Your task to perform on an android device: delete a single message in the gmail app Image 0: 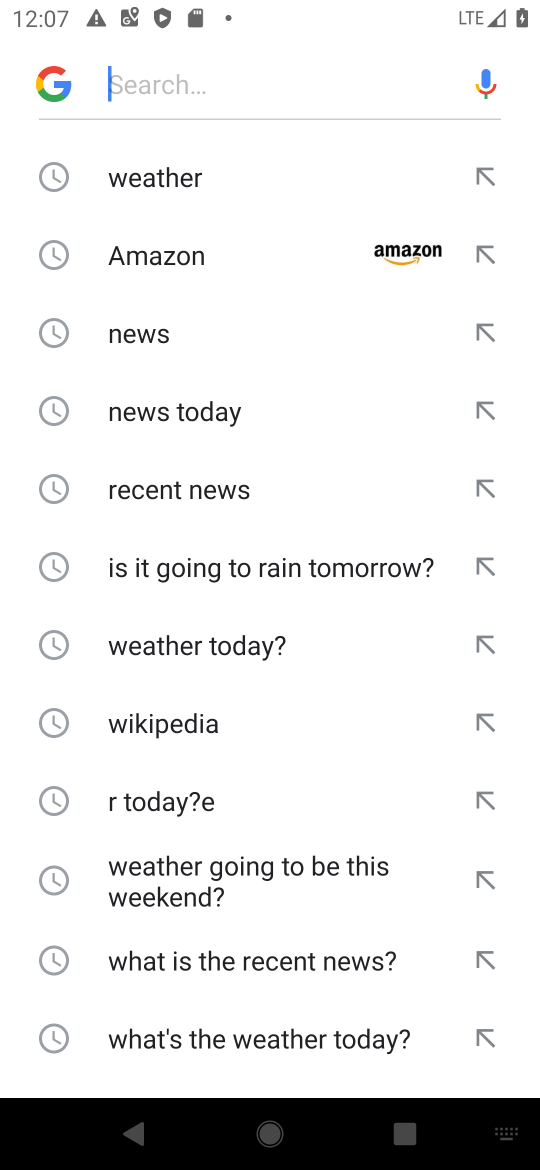
Step 0: press home button
Your task to perform on an android device: delete a single message in the gmail app Image 1: 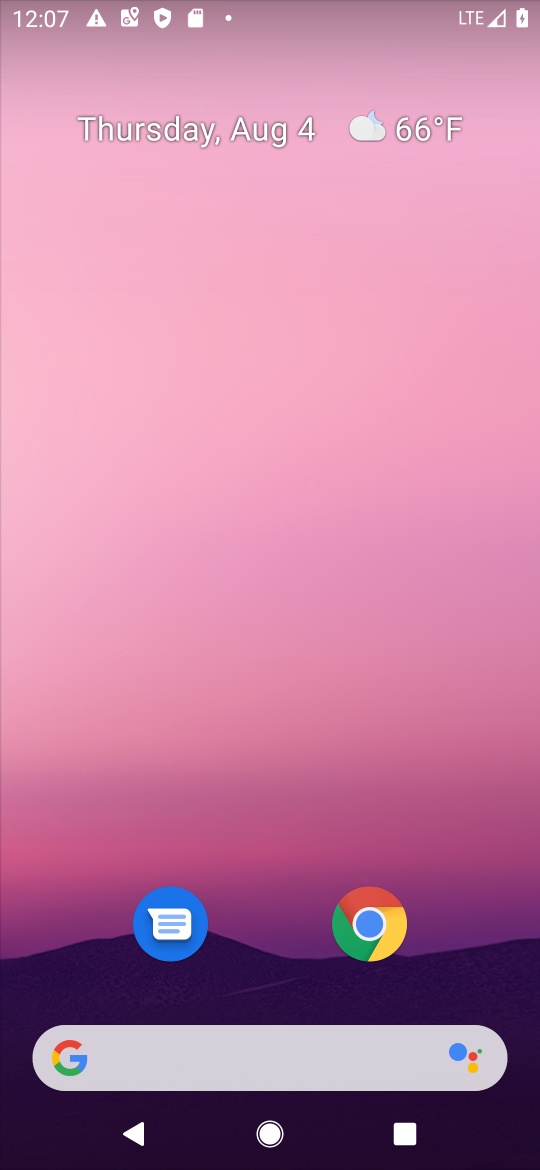
Step 1: drag from (110, 209) to (148, 98)
Your task to perform on an android device: delete a single message in the gmail app Image 2: 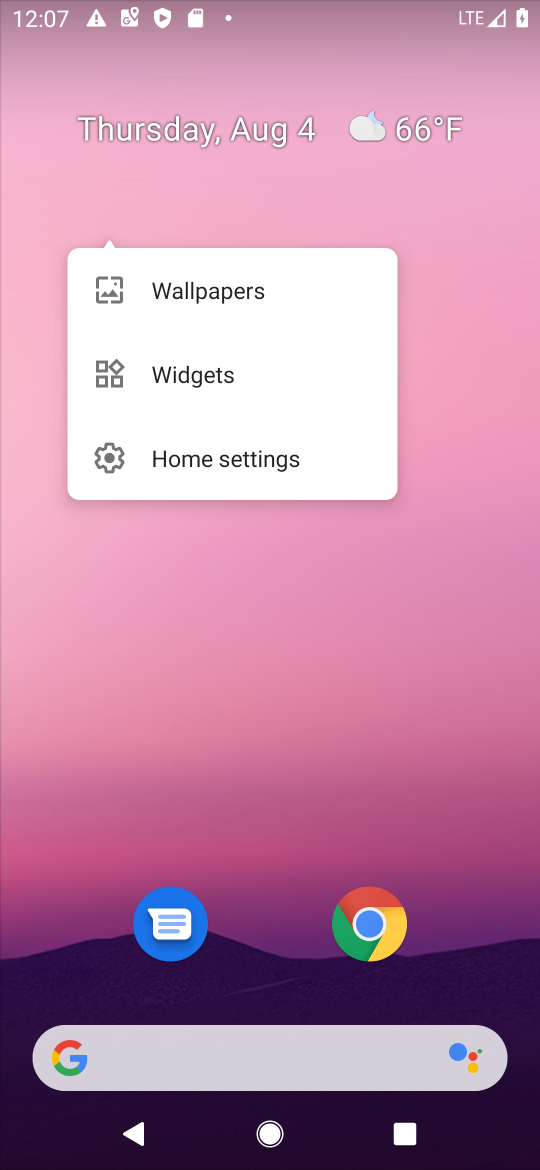
Step 2: drag from (59, 1136) to (167, 77)
Your task to perform on an android device: delete a single message in the gmail app Image 3: 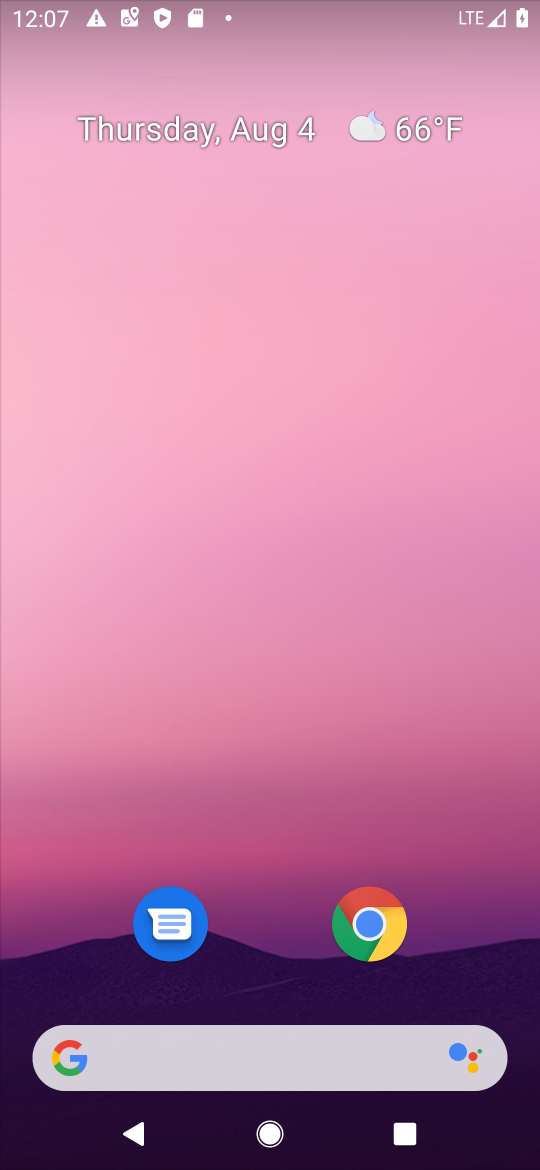
Step 3: drag from (53, 1108) to (201, 177)
Your task to perform on an android device: delete a single message in the gmail app Image 4: 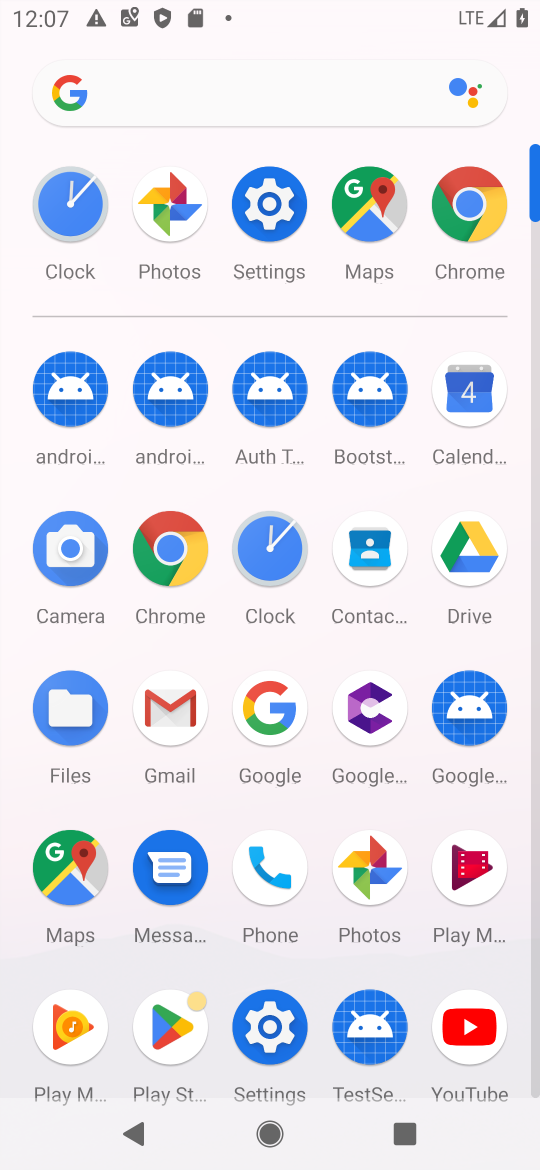
Step 4: click (186, 697)
Your task to perform on an android device: delete a single message in the gmail app Image 5: 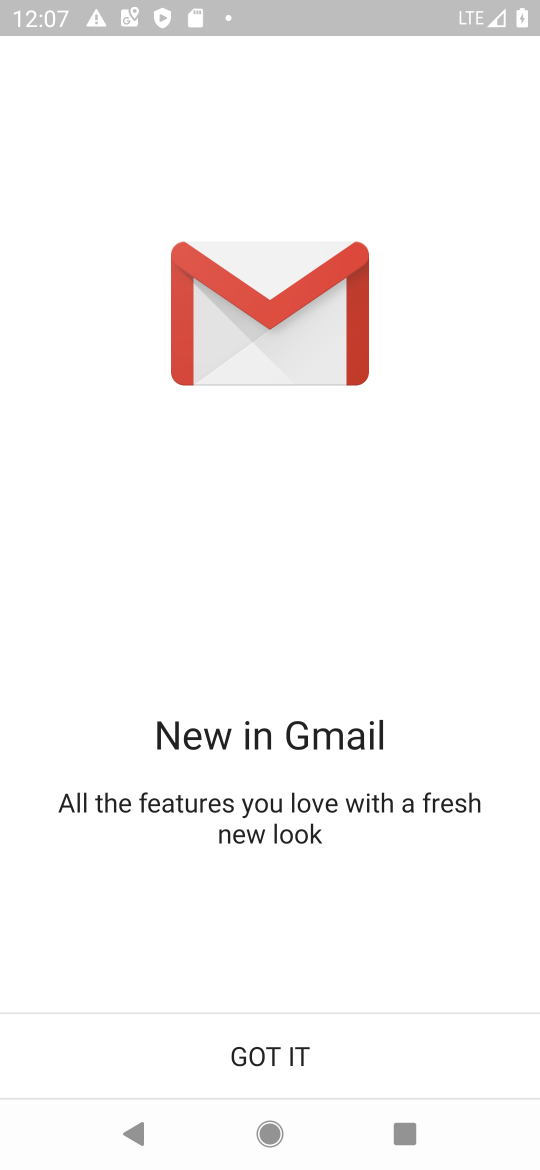
Step 5: click (245, 1060)
Your task to perform on an android device: delete a single message in the gmail app Image 6: 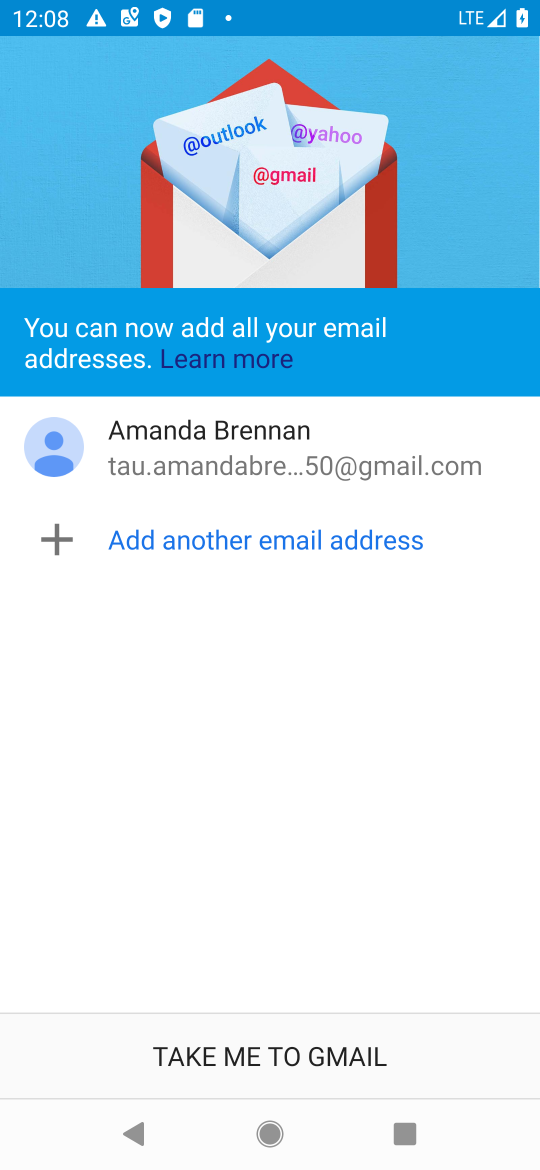
Step 6: click (311, 1036)
Your task to perform on an android device: delete a single message in the gmail app Image 7: 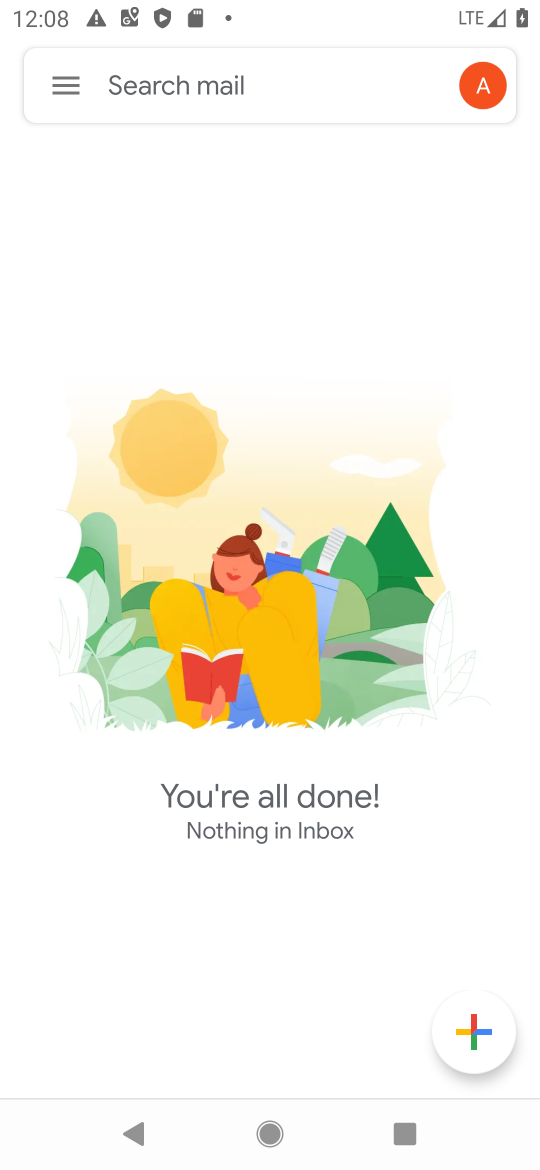
Step 7: task complete